Your task to perform on an android device: Open calendar and show me the third week of next month Image 0: 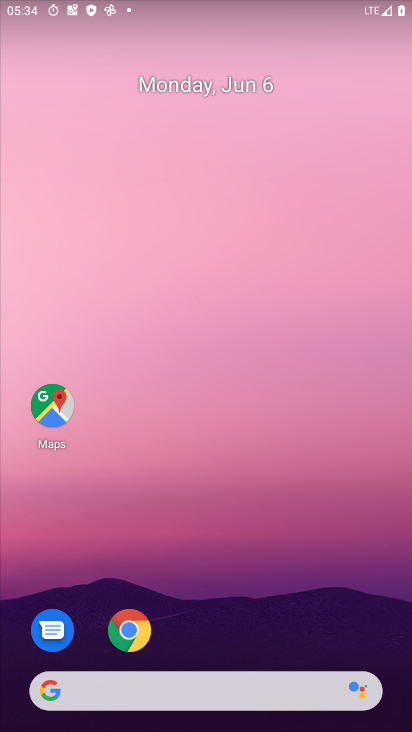
Step 0: drag from (268, 608) to (187, 30)
Your task to perform on an android device: Open calendar and show me the third week of next month Image 1: 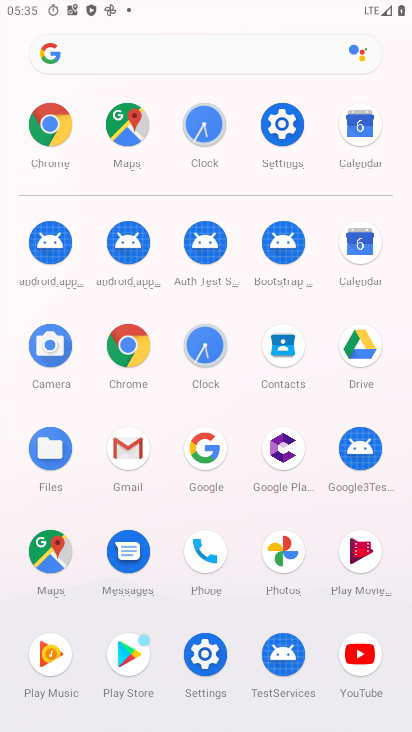
Step 1: click (361, 124)
Your task to perform on an android device: Open calendar and show me the third week of next month Image 2: 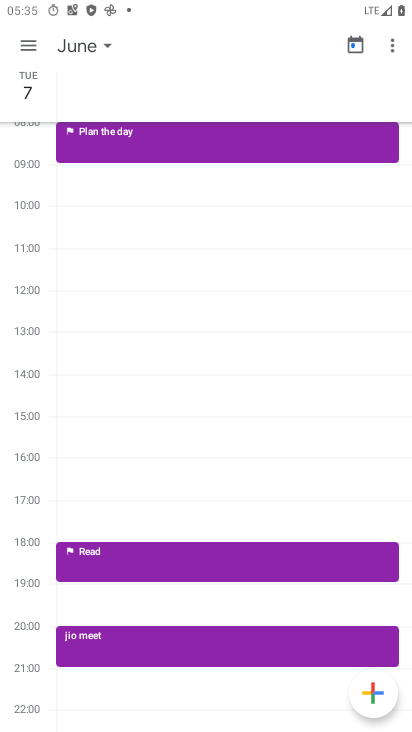
Step 2: click (103, 44)
Your task to perform on an android device: Open calendar and show me the third week of next month Image 3: 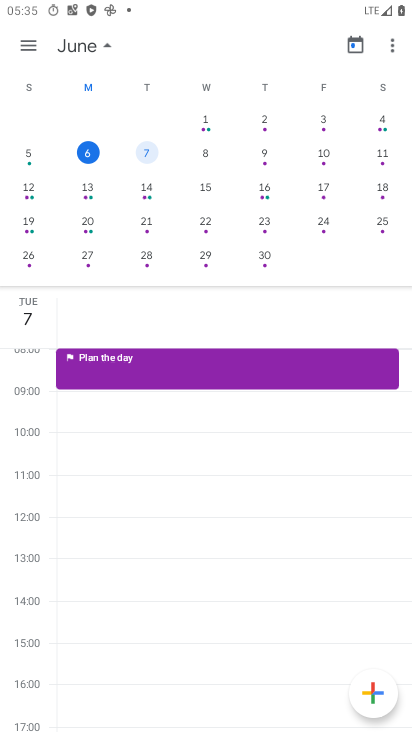
Step 3: drag from (352, 158) to (47, 163)
Your task to perform on an android device: Open calendar and show me the third week of next month Image 4: 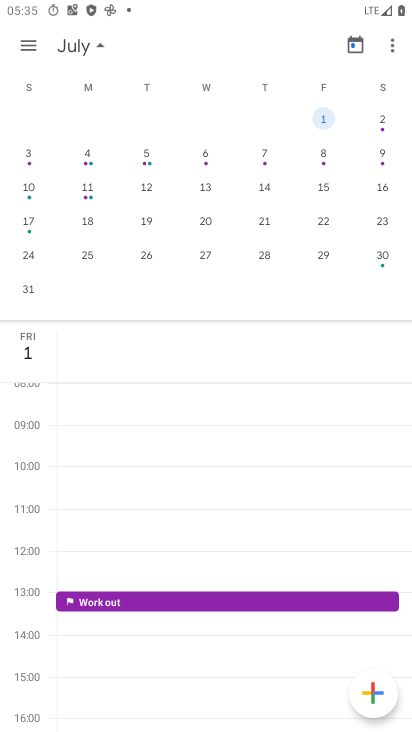
Step 4: click (204, 214)
Your task to perform on an android device: Open calendar and show me the third week of next month Image 5: 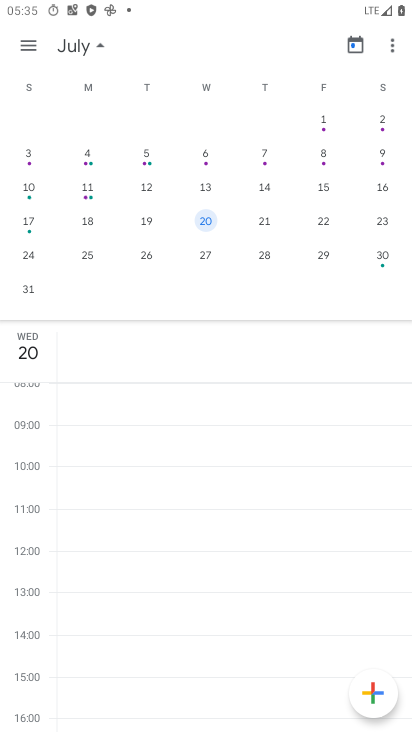
Step 5: task complete